Your task to perform on an android device: Open Google Chrome Image 0: 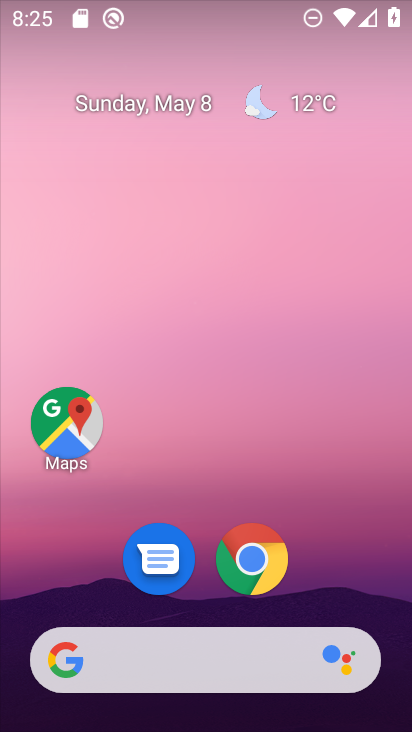
Step 0: click (254, 570)
Your task to perform on an android device: Open Google Chrome Image 1: 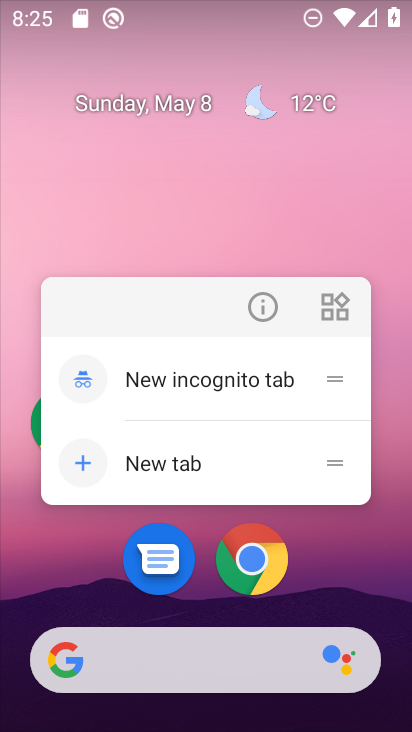
Step 1: click (254, 561)
Your task to perform on an android device: Open Google Chrome Image 2: 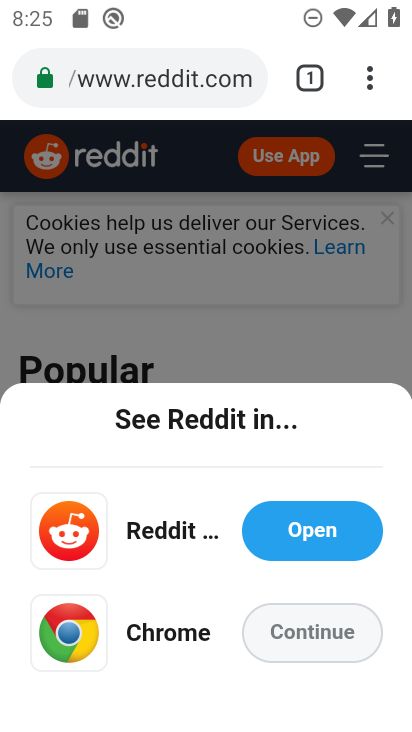
Step 2: task complete